Your task to perform on an android device: Go to Yahoo.com Image 0: 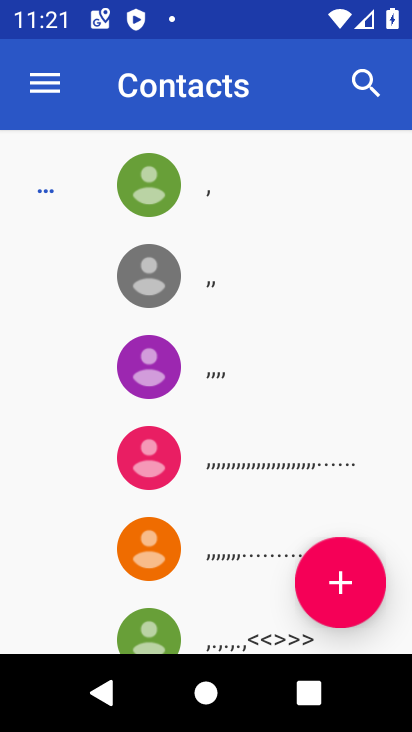
Step 0: click (249, 145)
Your task to perform on an android device: Go to Yahoo.com Image 1: 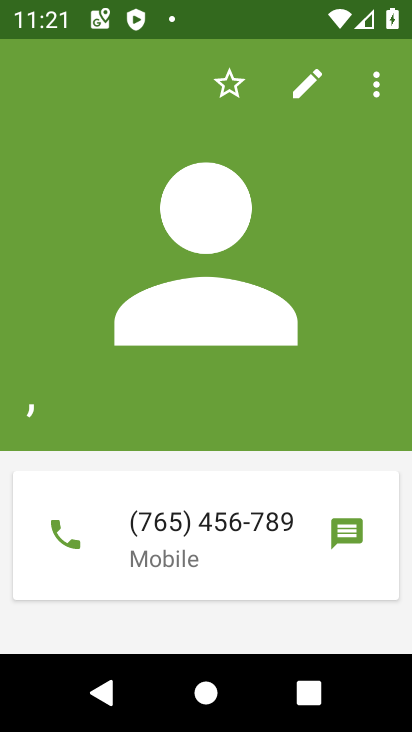
Step 1: press home button
Your task to perform on an android device: Go to Yahoo.com Image 2: 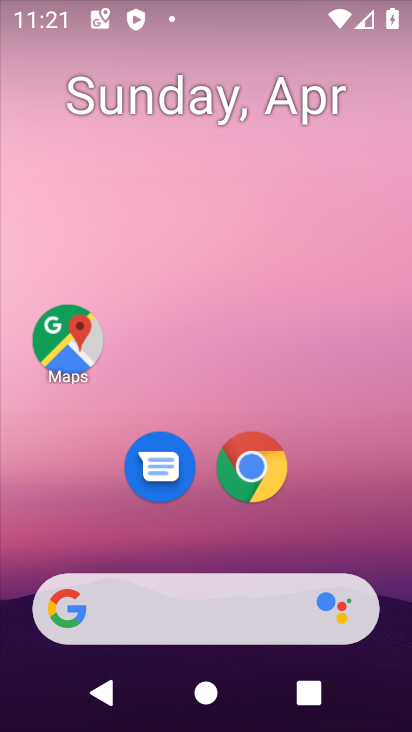
Step 2: click (247, 464)
Your task to perform on an android device: Go to Yahoo.com Image 3: 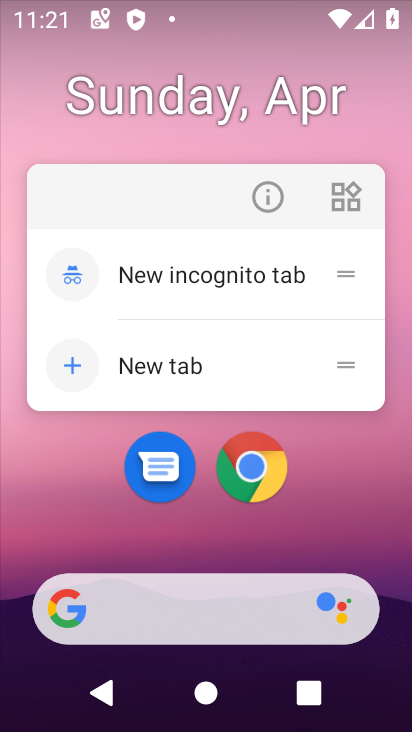
Step 3: click (240, 598)
Your task to perform on an android device: Go to Yahoo.com Image 4: 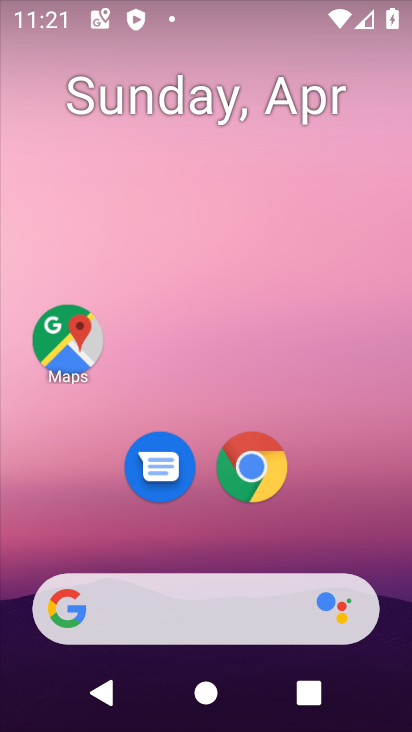
Step 4: click (234, 639)
Your task to perform on an android device: Go to Yahoo.com Image 5: 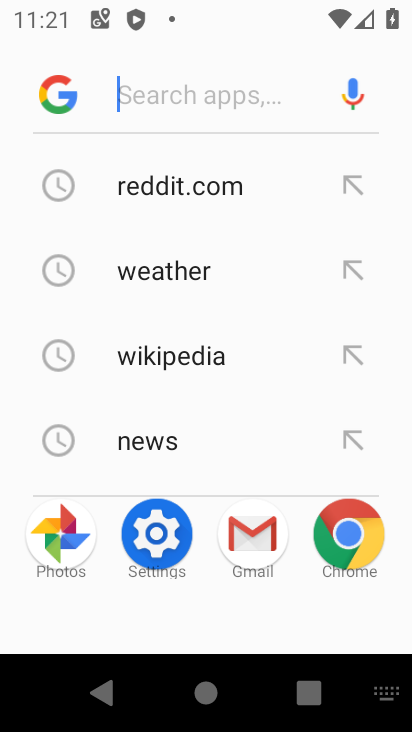
Step 5: drag from (218, 451) to (243, 118)
Your task to perform on an android device: Go to Yahoo.com Image 6: 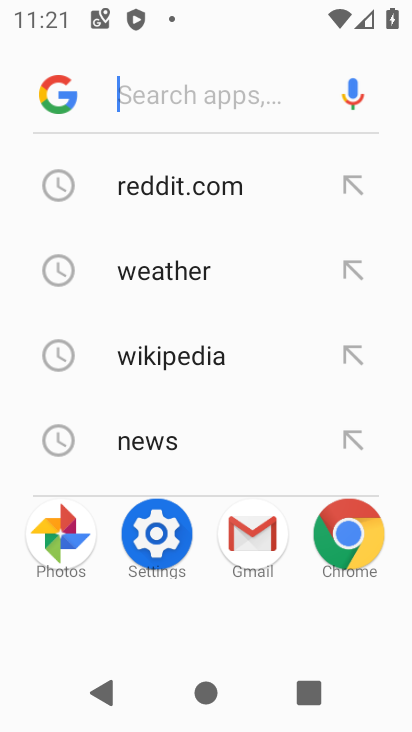
Step 6: click (175, 100)
Your task to perform on an android device: Go to Yahoo.com Image 7: 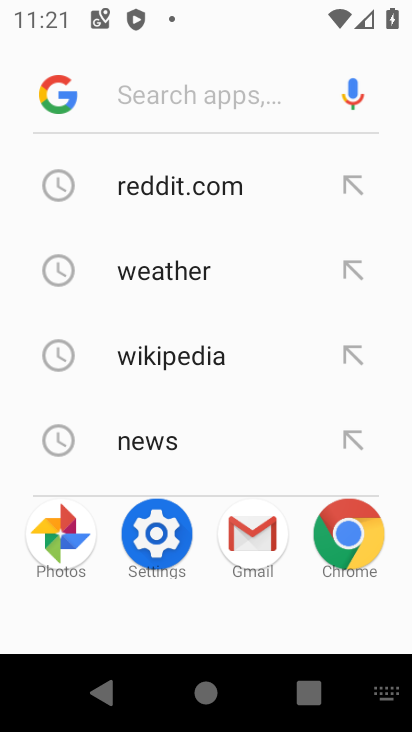
Step 7: type "yahoo.com"
Your task to perform on an android device: Go to Yahoo.com Image 8: 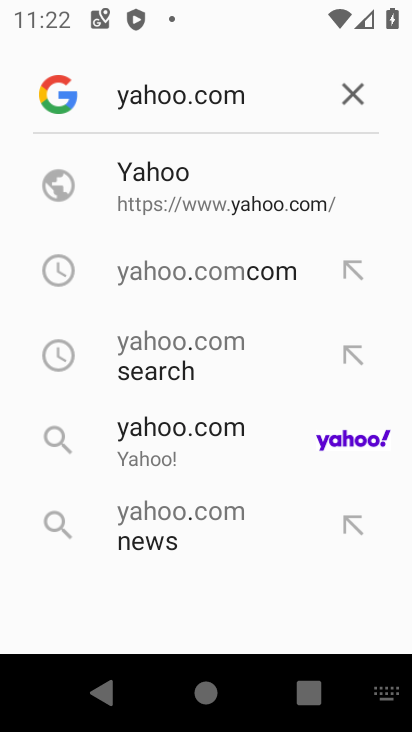
Step 8: click (225, 207)
Your task to perform on an android device: Go to Yahoo.com Image 9: 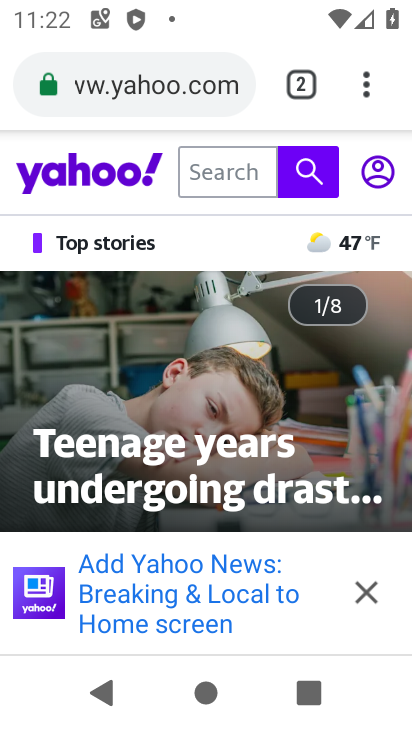
Step 9: task complete